Your task to perform on an android device: Go to location settings Image 0: 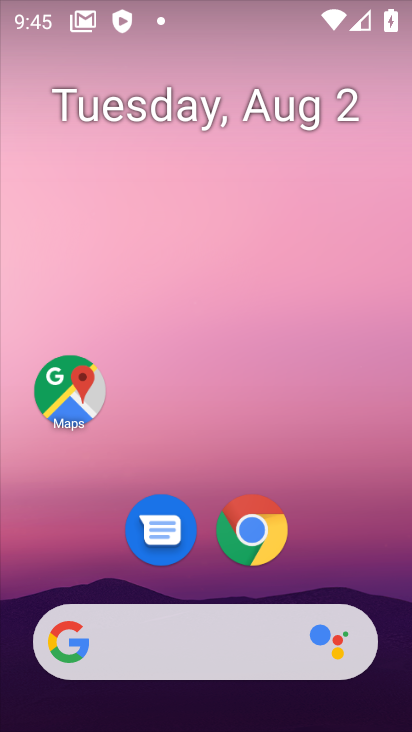
Step 0: drag from (327, 547) to (290, 12)
Your task to perform on an android device: Go to location settings Image 1: 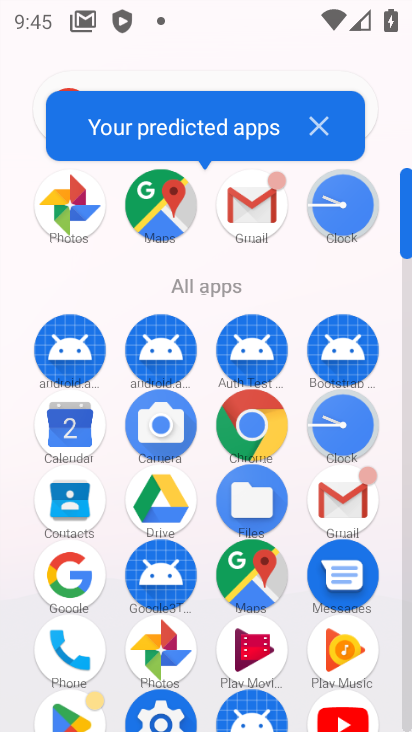
Step 1: drag from (205, 360) to (367, 44)
Your task to perform on an android device: Go to location settings Image 2: 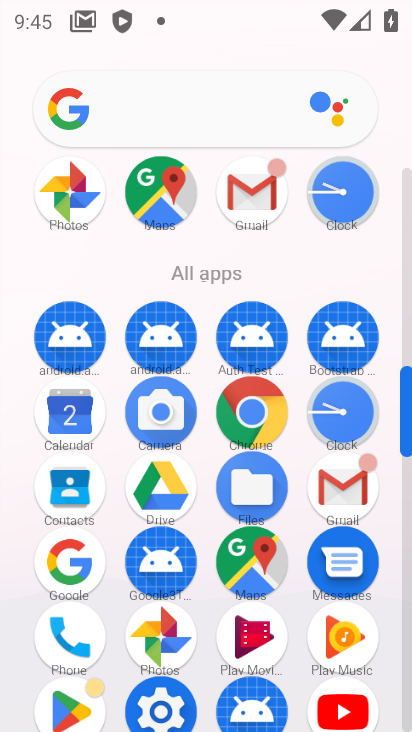
Step 2: click (152, 710)
Your task to perform on an android device: Go to location settings Image 3: 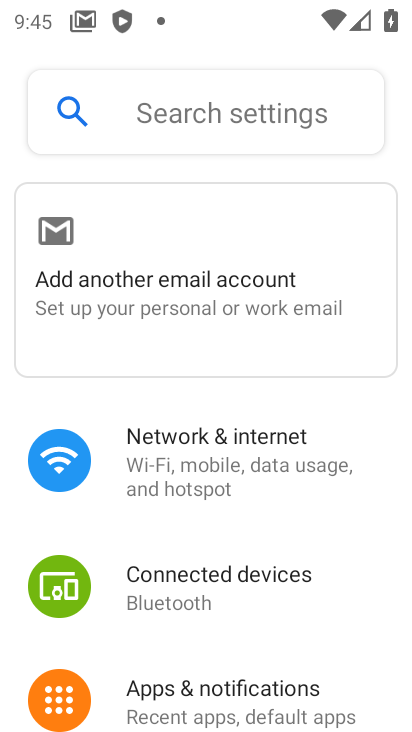
Step 3: drag from (226, 661) to (259, 159)
Your task to perform on an android device: Go to location settings Image 4: 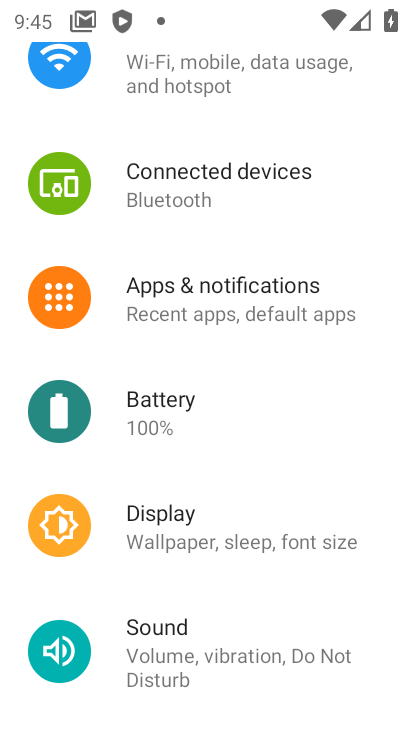
Step 4: drag from (230, 589) to (227, 203)
Your task to perform on an android device: Go to location settings Image 5: 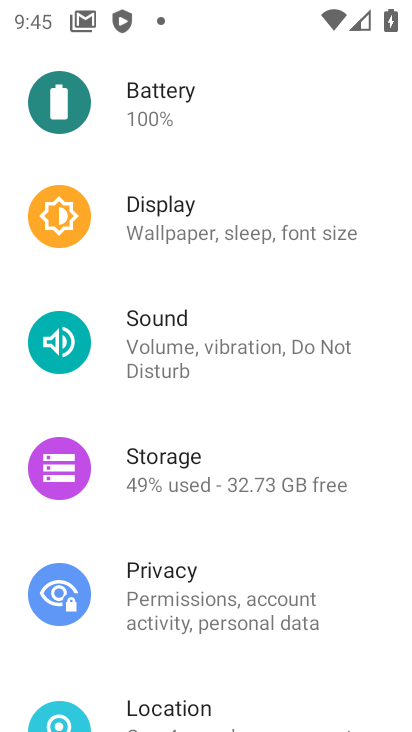
Step 5: click (153, 711)
Your task to perform on an android device: Go to location settings Image 6: 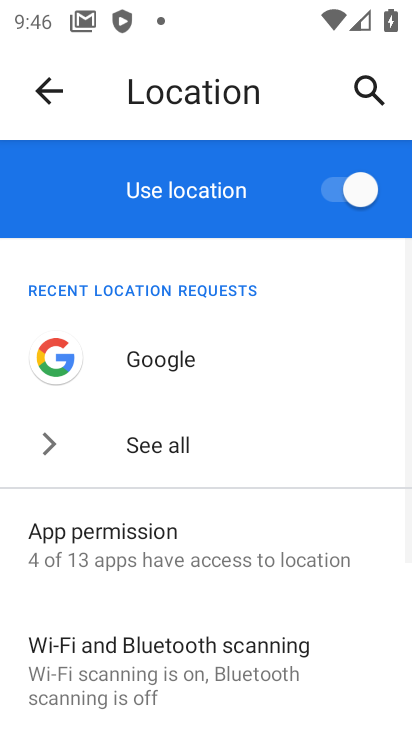
Step 6: task complete